Your task to perform on an android device: Open CNN.com Image 0: 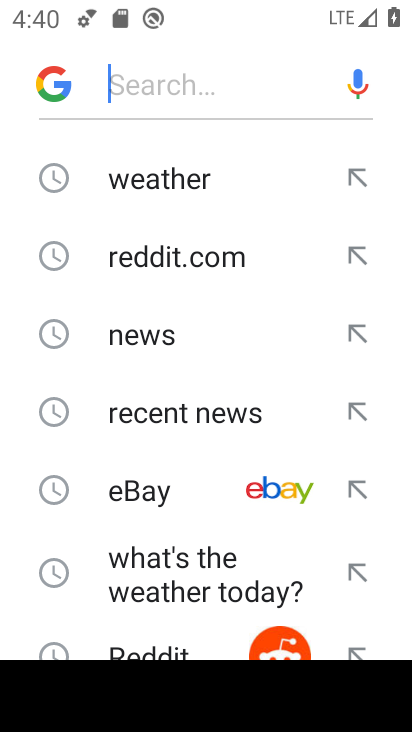
Step 0: press home button
Your task to perform on an android device: Open CNN.com Image 1: 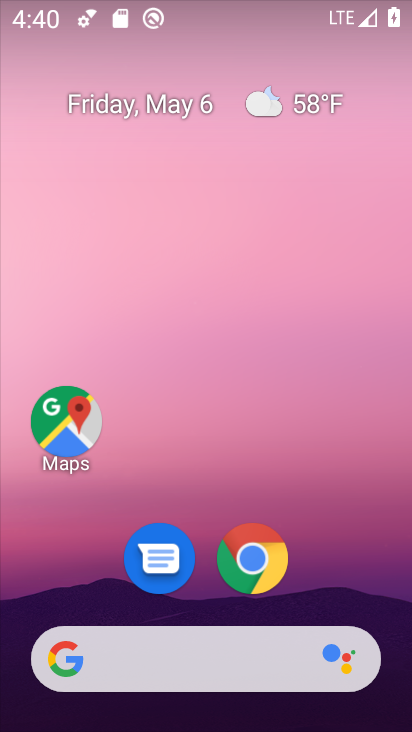
Step 1: drag from (322, 653) to (272, 11)
Your task to perform on an android device: Open CNN.com Image 2: 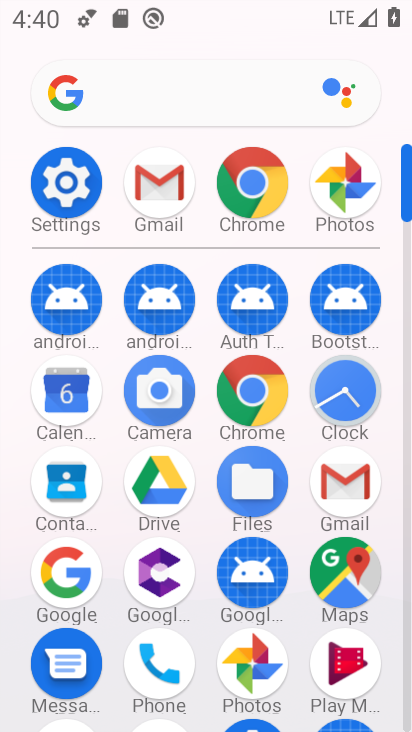
Step 2: click (257, 400)
Your task to perform on an android device: Open CNN.com Image 3: 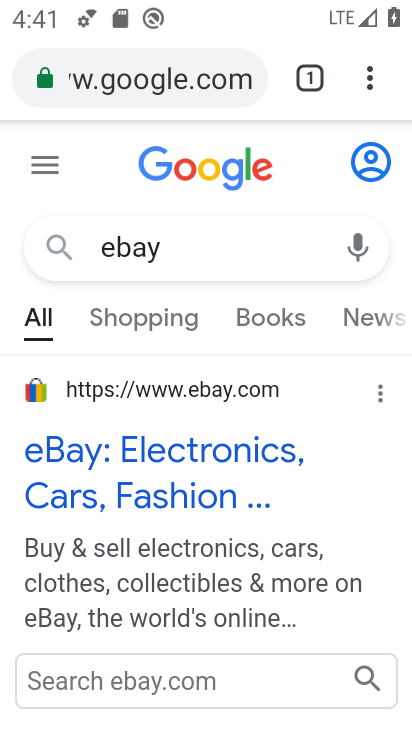
Step 3: click (179, 79)
Your task to perform on an android device: Open CNN.com Image 4: 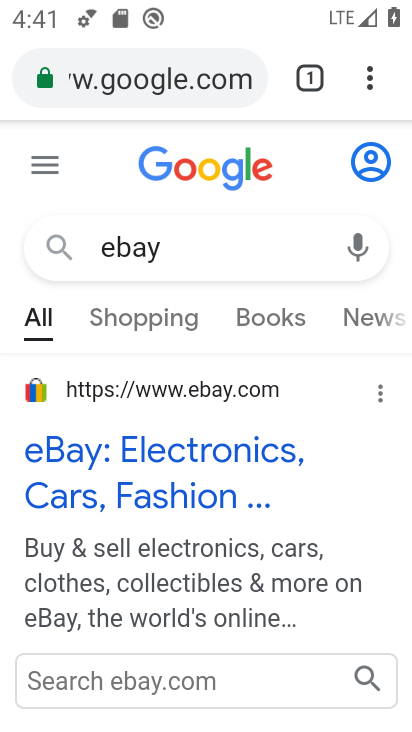
Step 4: click (179, 79)
Your task to perform on an android device: Open CNN.com Image 5: 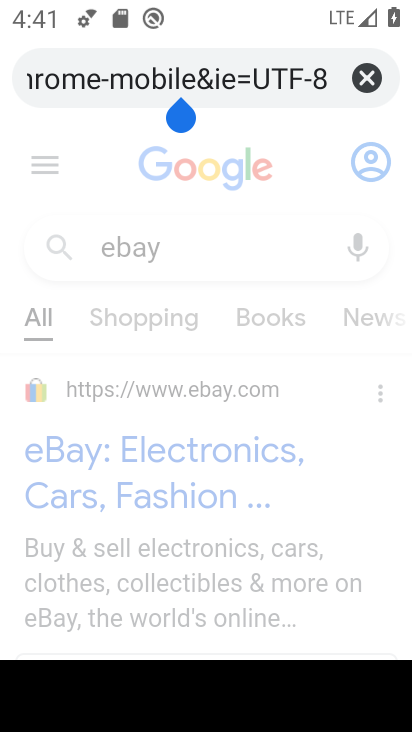
Step 5: click (360, 82)
Your task to perform on an android device: Open CNN.com Image 6: 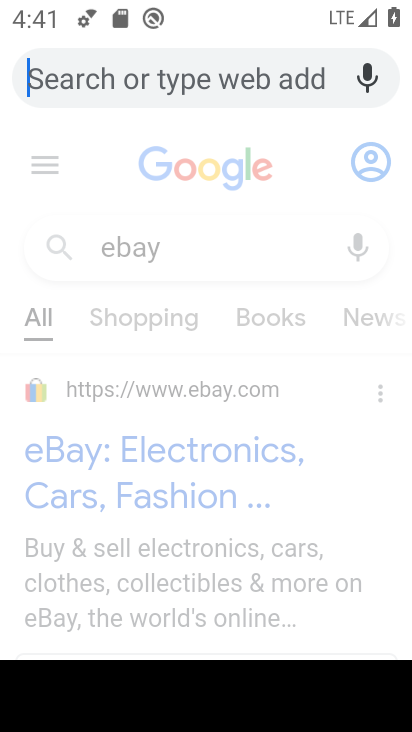
Step 6: click (230, 78)
Your task to perform on an android device: Open CNN.com Image 7: 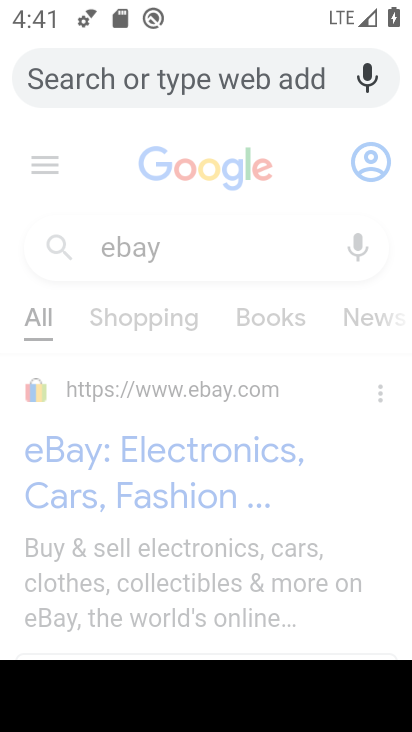
Step 7: type "cnn.com"
Your task to perform on an android device: Open CNN.com Image 8: 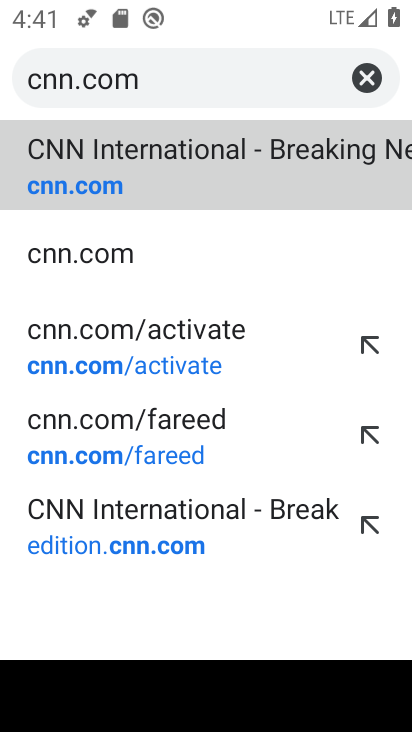
Step 8: click (255, 163)
Your task to perform on an android device: Open CNN.com Image 9: 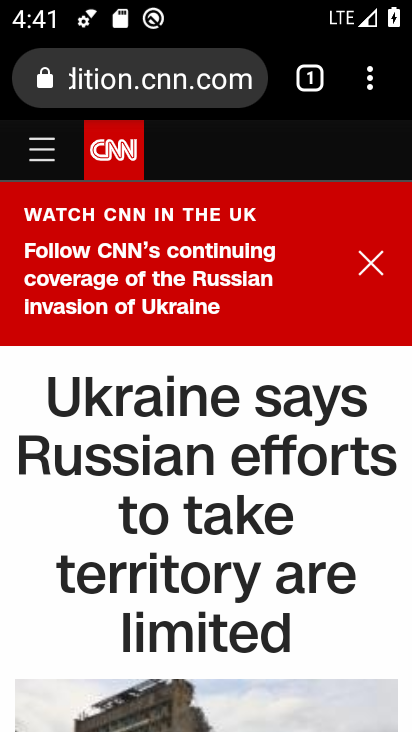
Step 9: task complete